Your task to perform on an android device: Add "usb-a" to the cart on bestbuy Image 0: 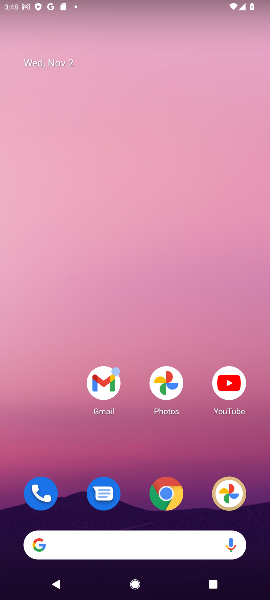
Step 0: drag from (151, 490) to (117, 131)
Your task to perform on an android device: Add "usb-a" to the cart on bestbuy Image 1: 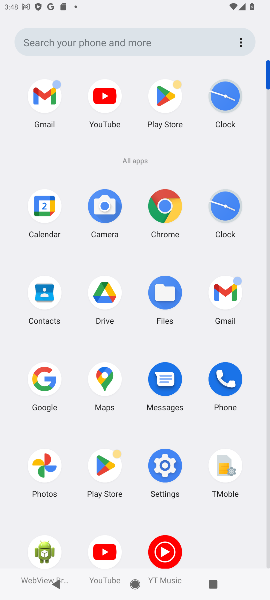
Step 1: click (40, 377)
Your task to perform on an android device: Add "usb-a" to the cart on bestbuy Image 2: 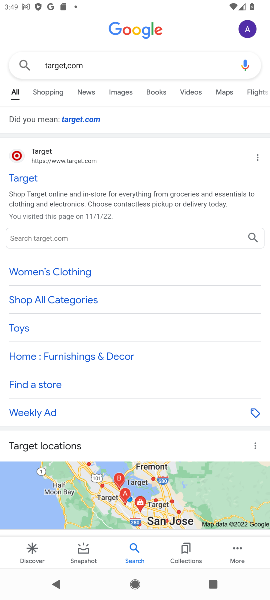
Step 2: click (96, 59)
Your task to perform on an android device: Add "usb-a" to the cart on bestbuy Image 3: 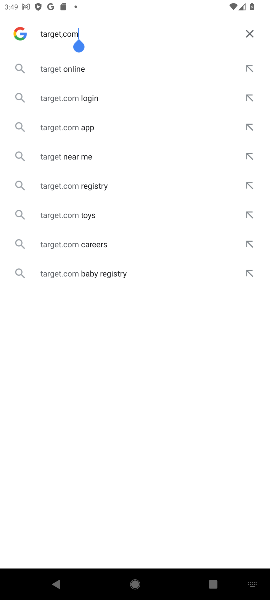
Step 3: click (251, 30)
Your task to perform on an android device: Add "usb-a" to the cart on bestbuy Image 4: 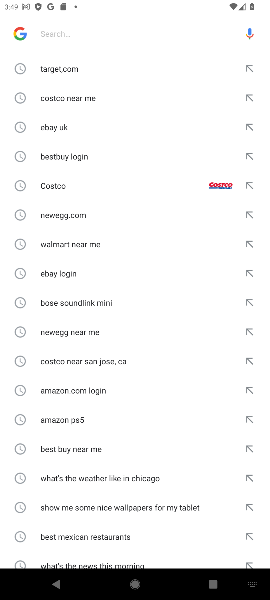
Step 4: click (60, 34)
Your task to perform on an android device: Add "usb-a" to the cart on bestbuy Image 5: 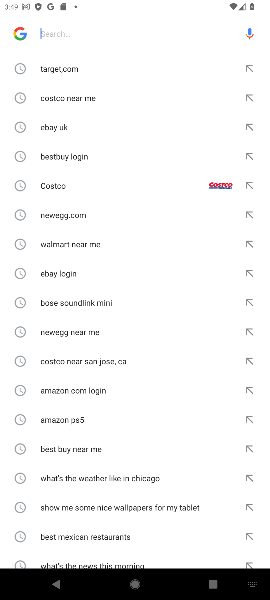
Step 5: type "bestbuy "
Your task to perform on an android device: Add "usb-a" to the cart on bestbuy Image 6: 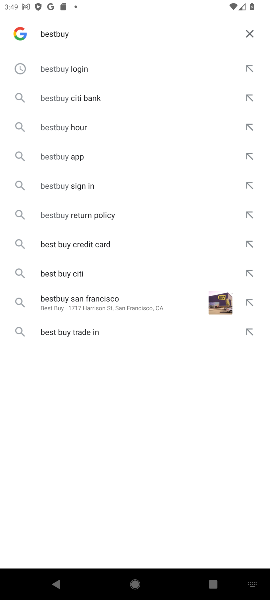
Step 6: click (57, 154)
Your task to perform on an android device: Add "usb-a" to the cart on bestbuy Image 7: 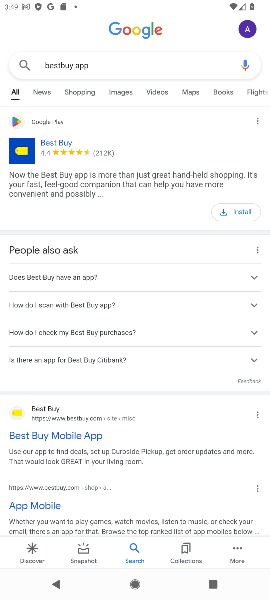
Step 7: click (19, 410)
Your task to perform on an android device: Add "usb-a" to the cart on bestbuy Image 8: 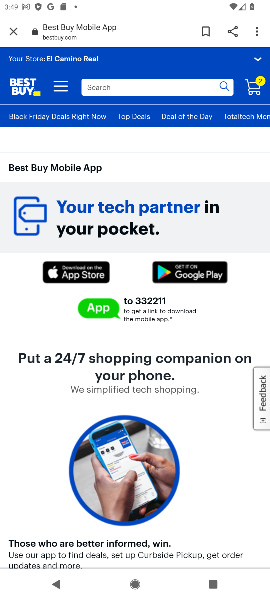
Step 8: click (156, 77)
Your task to perform on an android device: Add "usb-a" to the cart on bestbuy Image 9: 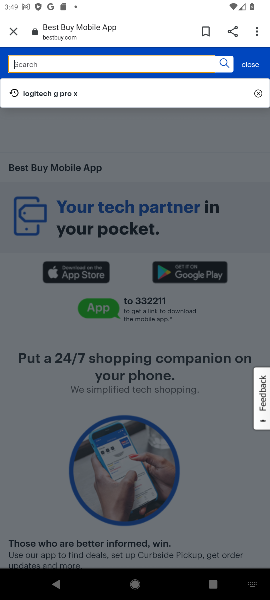
Step 9: click (156, 77)
Your task to perform on an android device: Add "usb-a" to the cart on bestbuy Image 10: 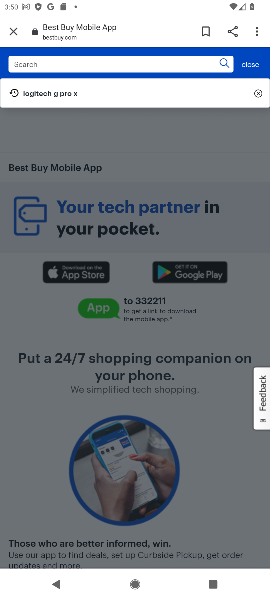
Step 10: click (61, 58)
Your task to perform on an android device: Add "usb-a" to the cart on bestbuy Image 11: 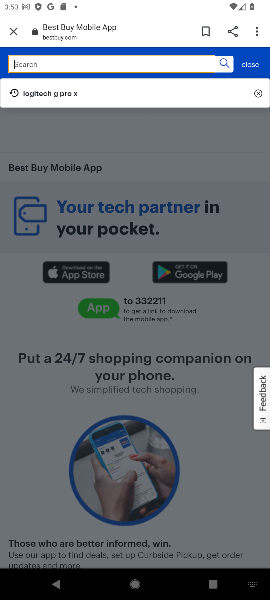
Step 11: type "usb "
Your task to perform on an android device: Add "usb-a" to the cart on bestbuy Image 12: 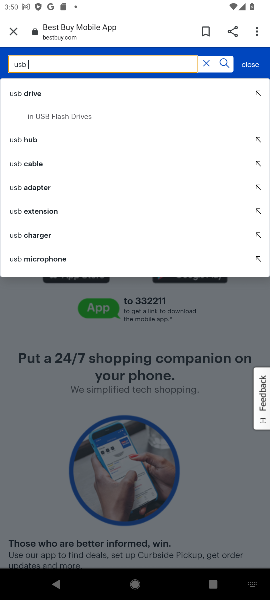
Step 12: click (27, 89)
Your task to perform on an android device: Add "usb-a" to the cart on bestbuy Image 13: 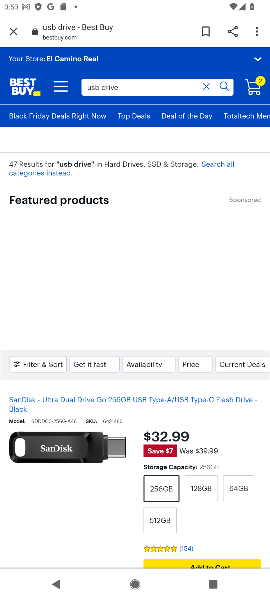
Step 13: drag from (96, 511) to (121, 333)
Your task to perform on an android device: Add "usb-a" to the cart on bestbuy Image 14: 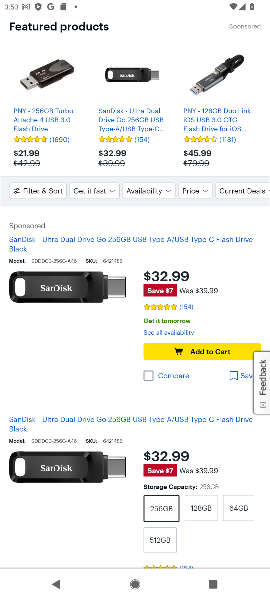
Step 14: click (192, 347)
Your task to perform on an android device: Add "usb-a" to the cart on bestbuy Image 15: 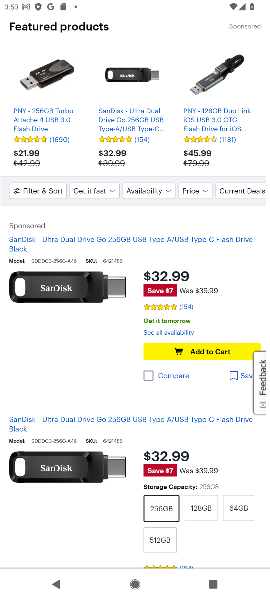
Step 15: task complete